Your task to perform on an android device: turn on sleep mode Image 0: 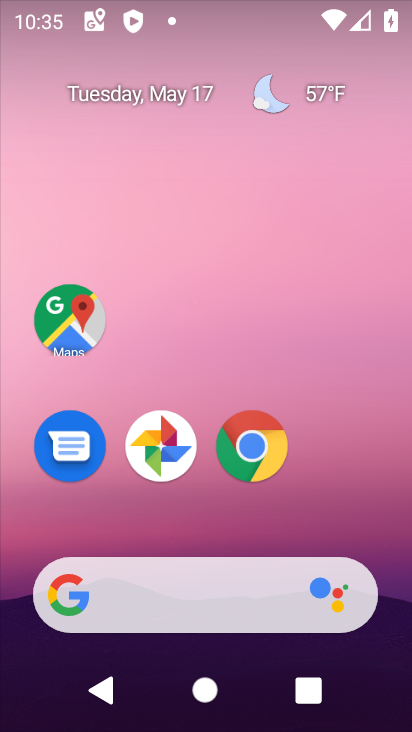
Step 0: drag from (224, 598) to (240, 402)
Your task to perform on an android device: turn on sleep mode Image 1: 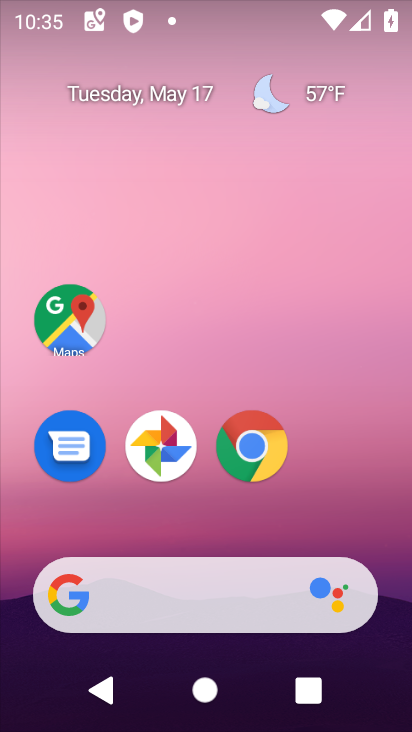
Step 1: drag from (197, 623) to (230, 203)
Your task to perform on an android device: turn on sleep mode Image 2: 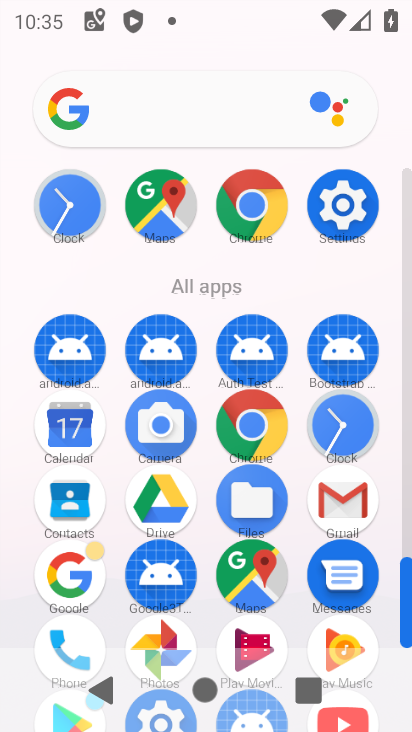
Step 2: click (328, 212)
Your task to perform on an android device: turn on sleep mode Image 3: 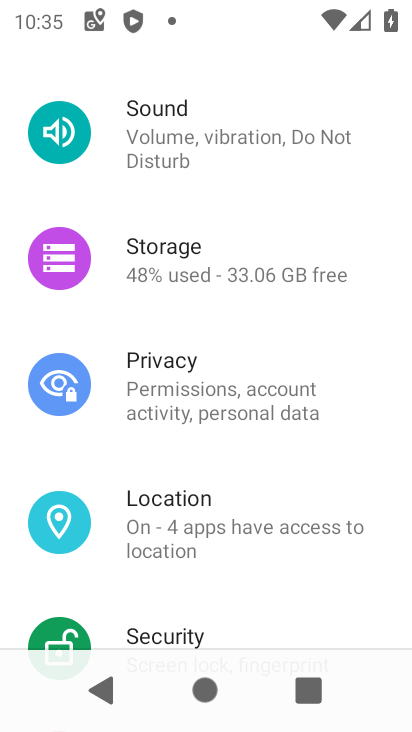
Step 3: drag from (201, 221) to (216, 438)
Your task to perform on an android device: turn on sleep mode Image 4: 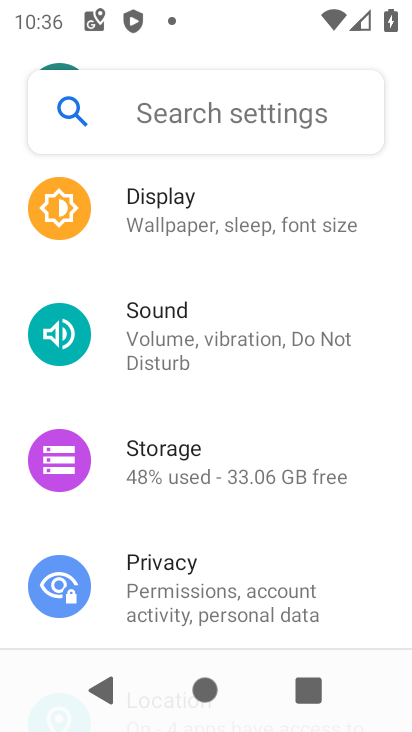
Step 4: click (191, 228)
Your task to perform on an android device: turn on sleep mode Image 5: 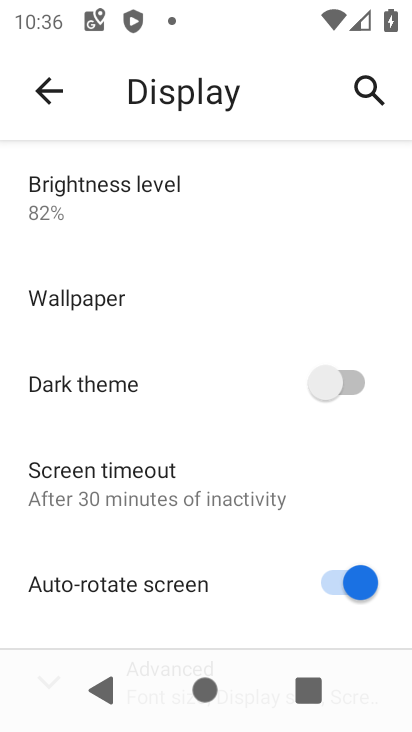
Step 5: drag from (158, 498) to (172, 26)
Your task to perform on an android device: turn on sleep mode Image 6: 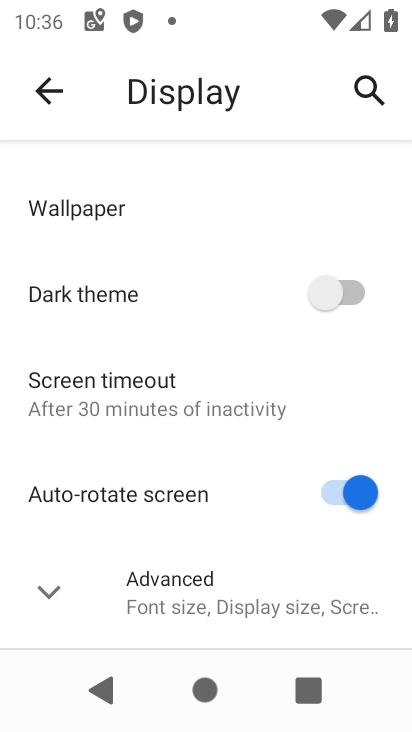
Step 6: drag from (164, 591) to (205, 185)
Your task to perform on an android device: turn on sleep mode Image 7: 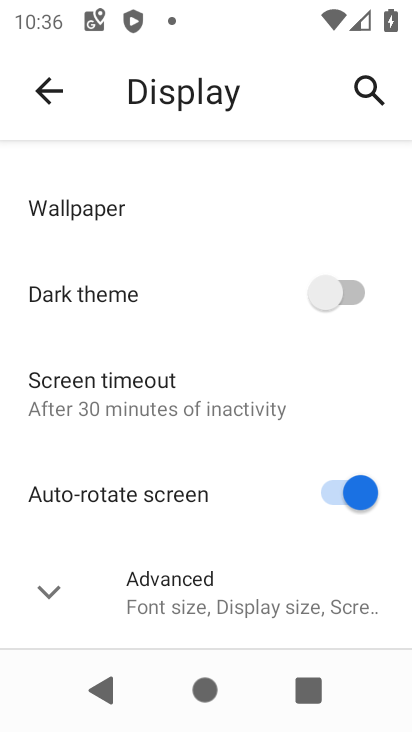
Step 7: click (167, 607)
Your task to perform on an android device: turn on sleep mode Image 8: 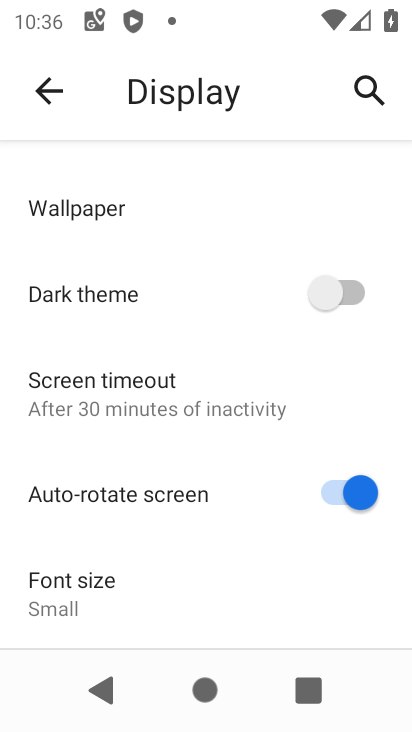
Step 8: task complete